Your task to perform on an android device: uninstall "DoorDash - Food Delivery" Image 0: 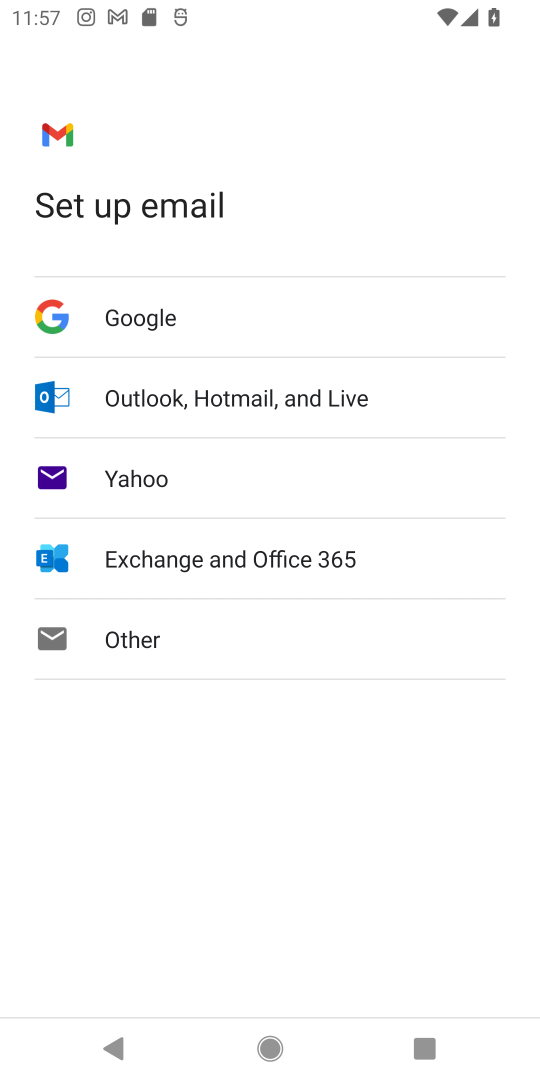
Step 0: press home button
Your task to perform on an android device: uninstall "DoorDash - Food Delivery" Image 1: 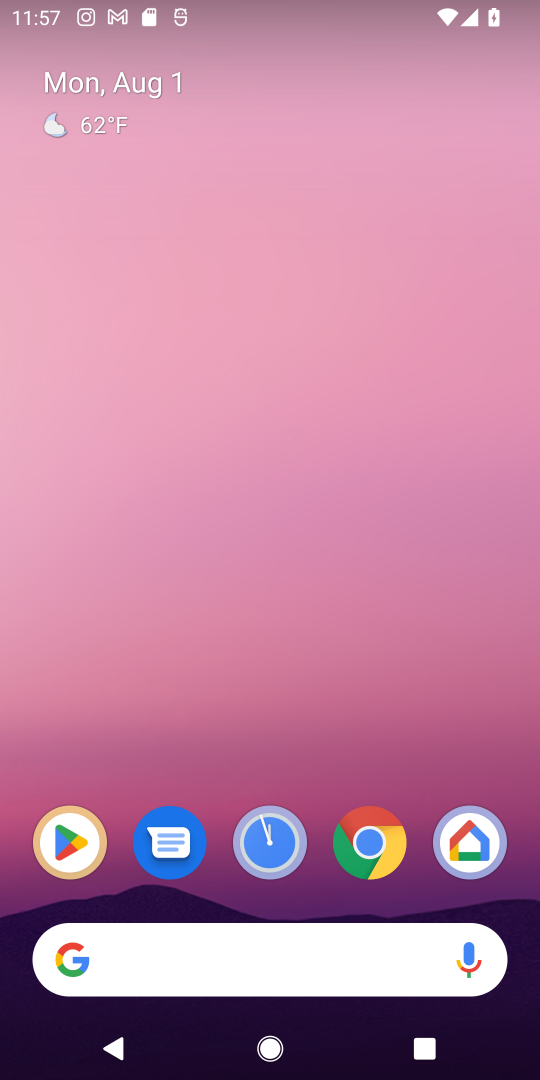
Step 1: click (58, 848)
Your task to perform on an android device: uninstall "DoorDash - Food Delivery" Image 2: 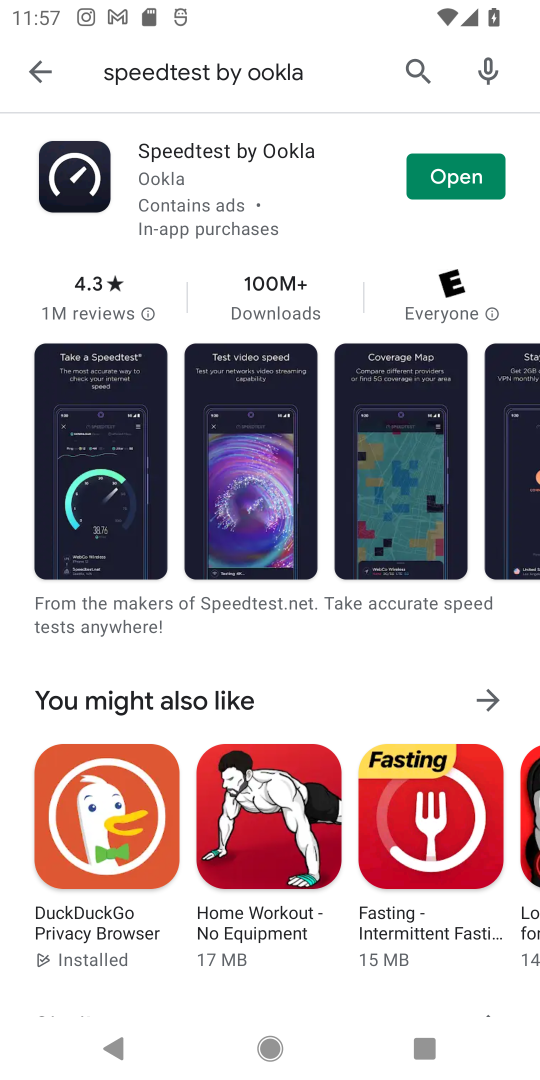
Step 2: click (400, 63)
Your task to perform on an android device: uninstall "DoorDash - Food Delivery" Image 3: 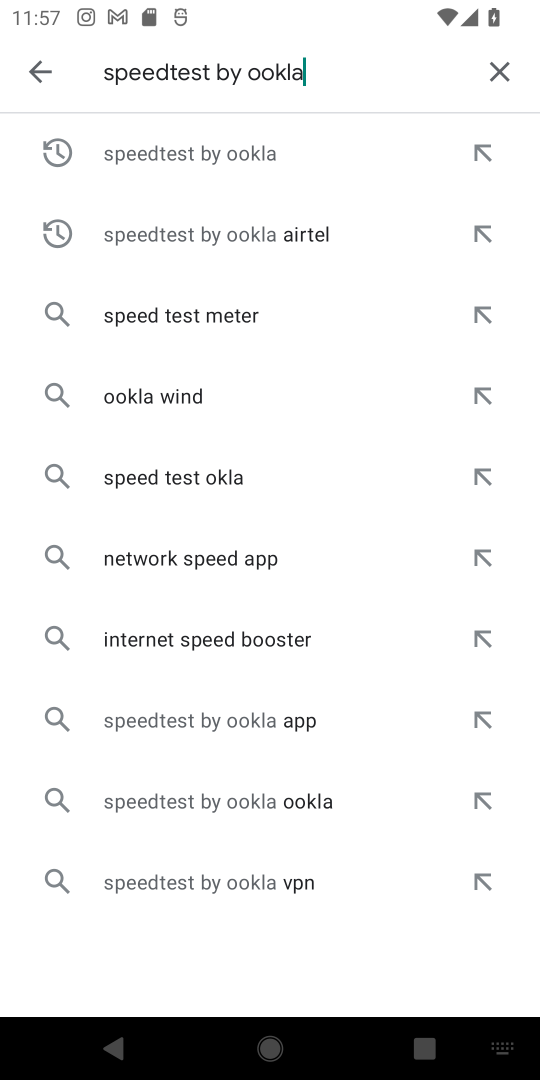
Step 3: click (504, 39)
Your task to perform on an android device: uninstall "DoorDash - Food Delivery" Image 4: 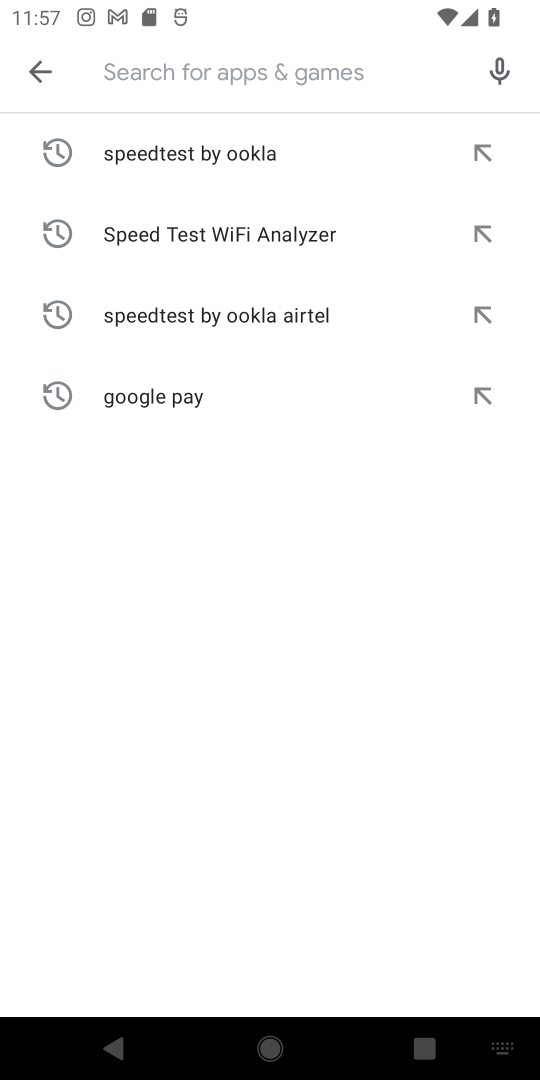
Step 4: click (171, 79)
Your task to perform on an android device: uninstall "DoorDash - Food Delivery" Image 5: 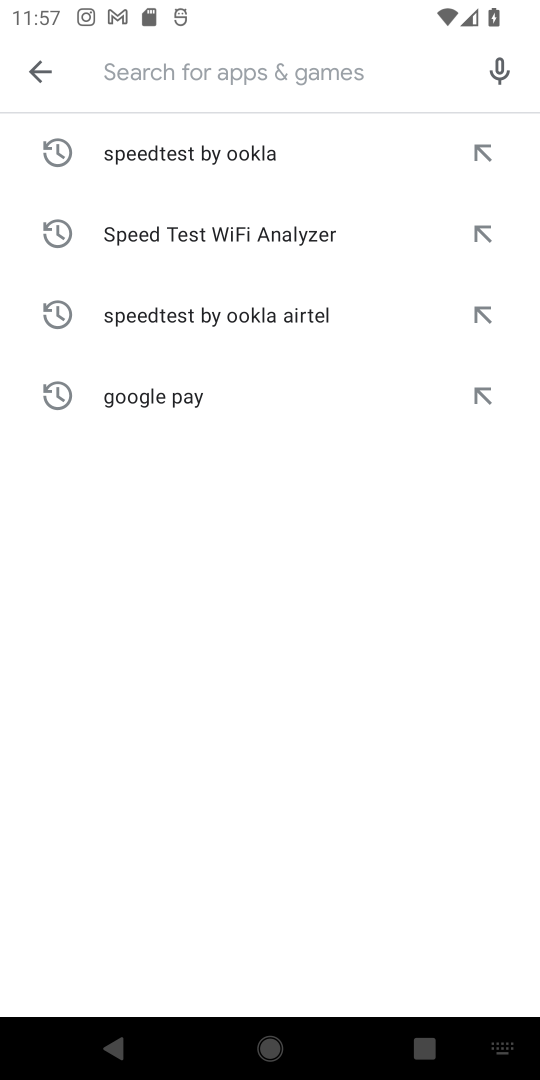
Step 5: type "doordash"
Your task to perform on an android device: uninstall "DoorDash - Food Delivery" Image 6: 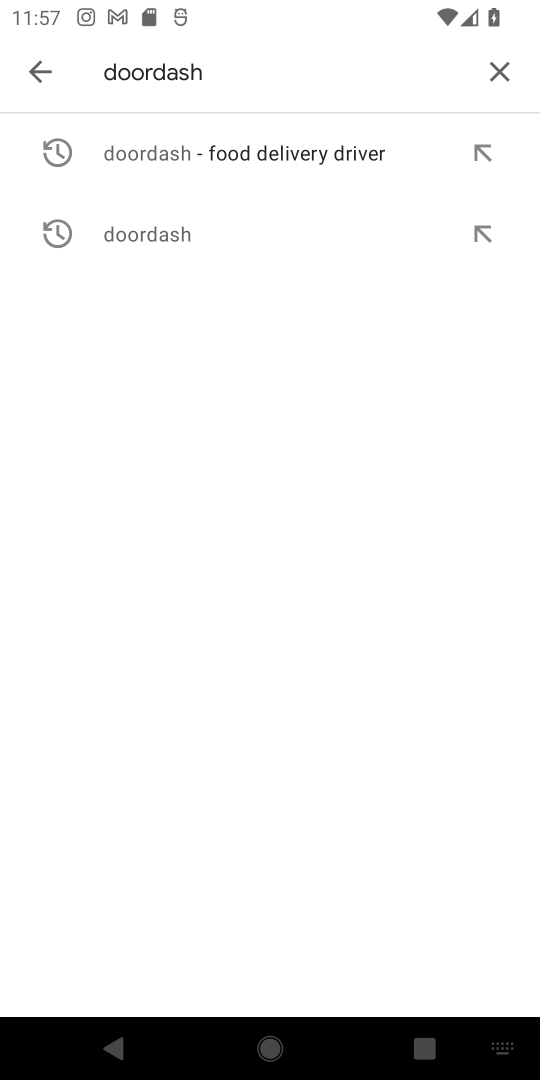
Step 6: click (216, 172)
Your task to perform on an android device: uninstall "DoorDash - Food Delivery" Image 7: 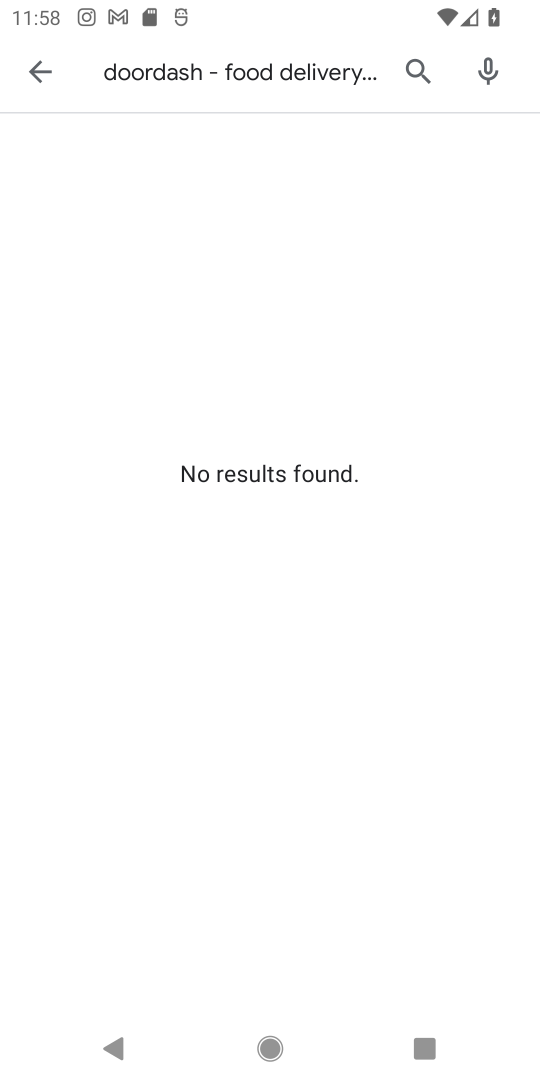
Step 7: click (412, 67)
Your task to perform on an android device: uninstall "DoorDash - Food Delivery" Image 8: 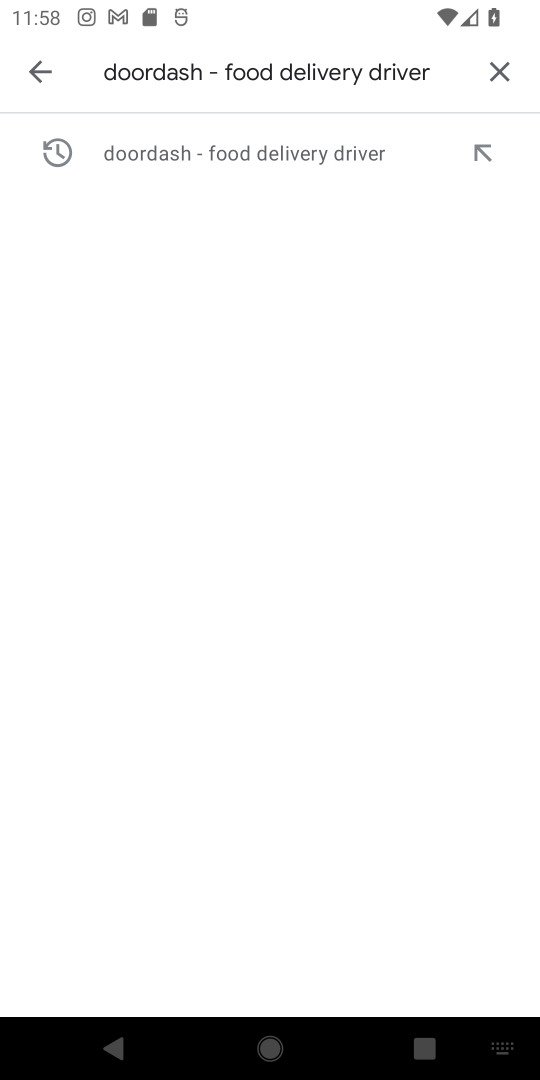
Step 8: click (491, 77)
Your task to perform on an android device: uninstall "DoorDash - Food Delivery" Image 9: 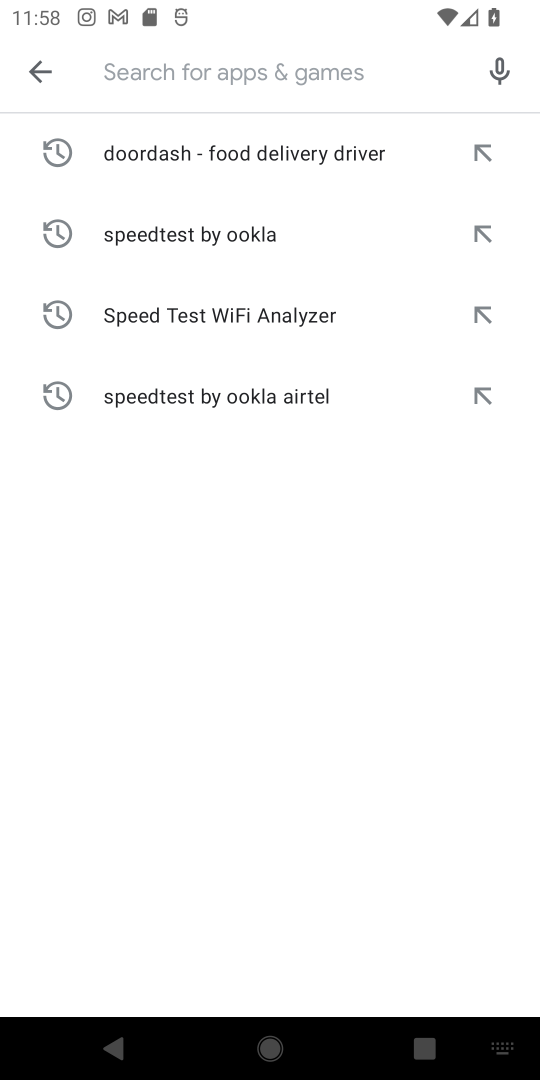
Step 9: click (243, 64)
Your task to perform on an android device: uninstall "DoorDash - Food Delivery" Image 10: 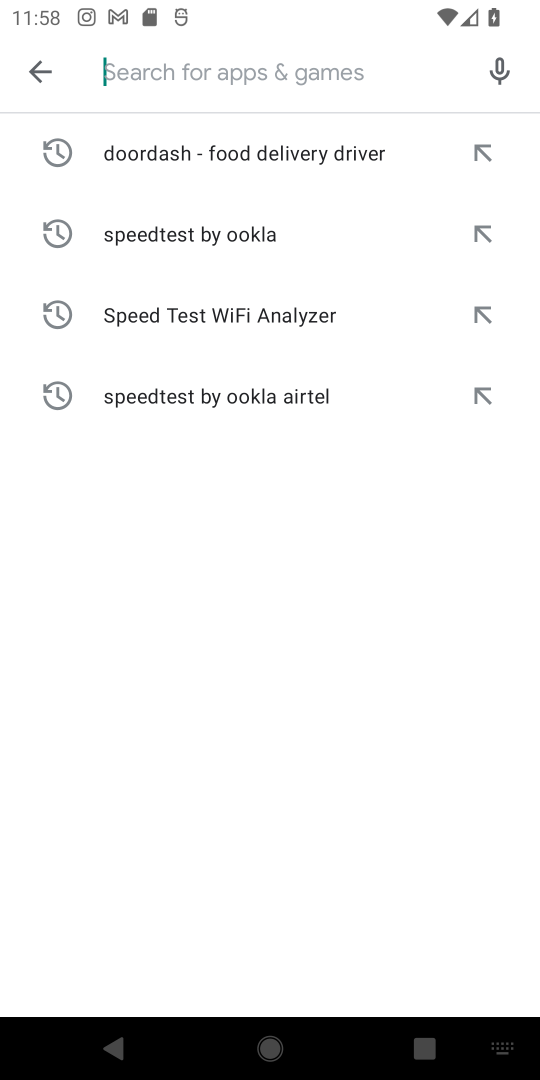
Step 10: type "doordash"
Your task to perform on an android device: uninstall "DoorDash - Food Delivery" Image 11: 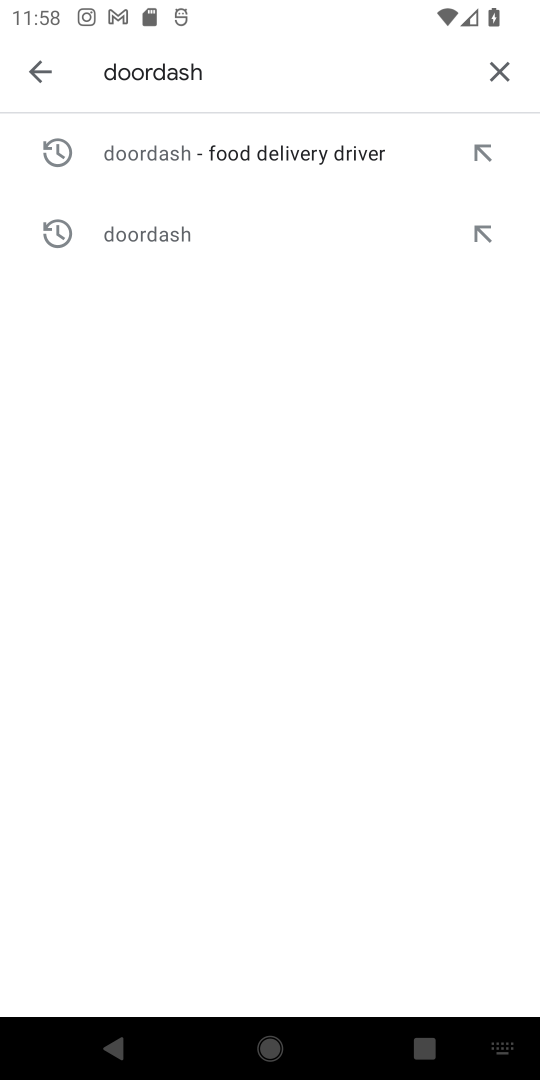
Step 11: click (202, 147)
Your task to perform on an android device: uninstall "DoorDash - Food Delivery" Image 12: 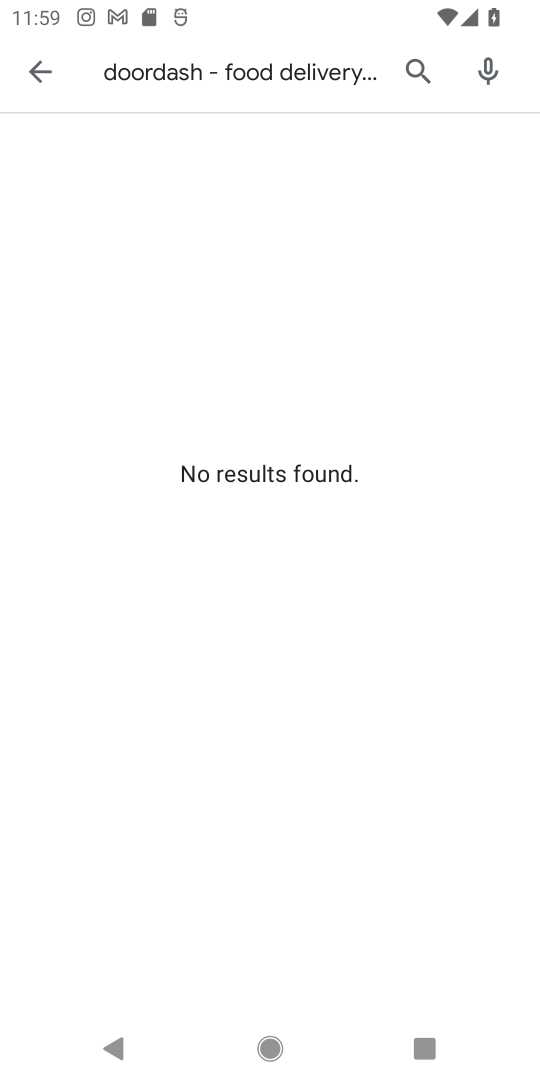
Step 12: click (413, 55)
Your task to perform on an android device: uninstall "DoorDash - Food Delivery" Image 13: 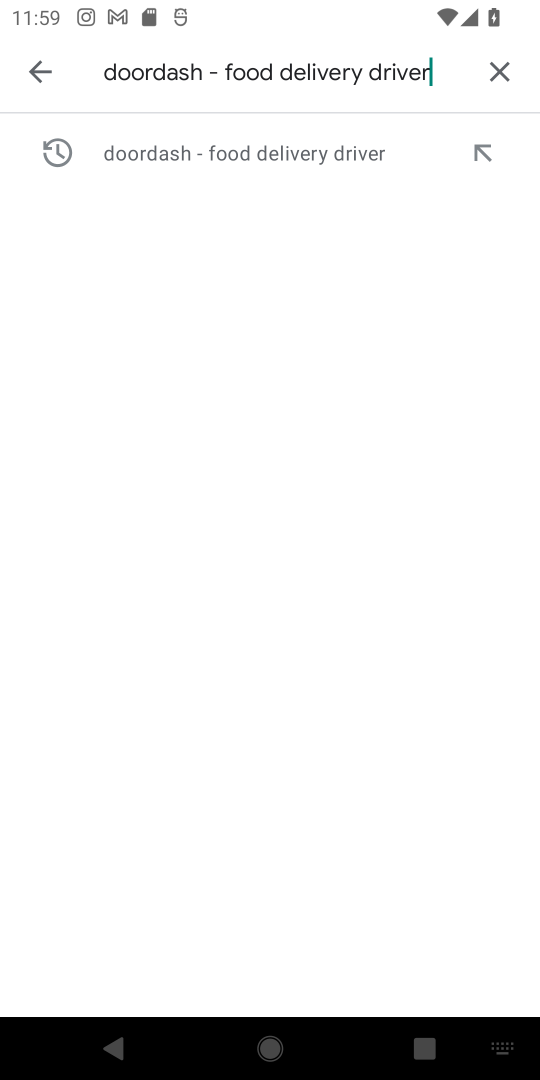
Step 13: click (494, 65)
Your task to perform on an android device: uninstall "DoorDash - Food Delivery" Image 14: 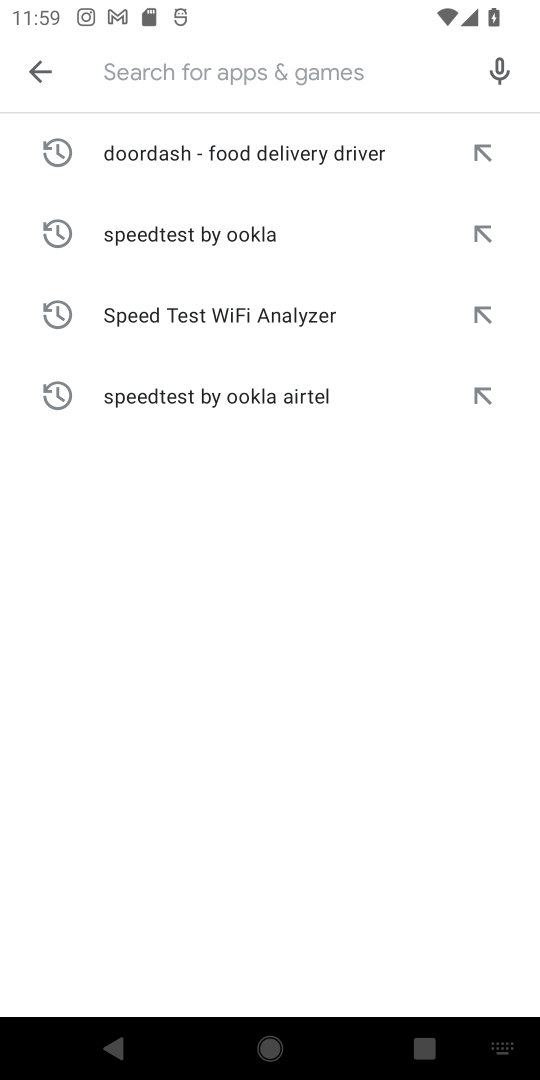
Step 14: click (185, 64)
Your task to perform on an android device: uninstall "DoorDash - Food Delivery" Image 15: 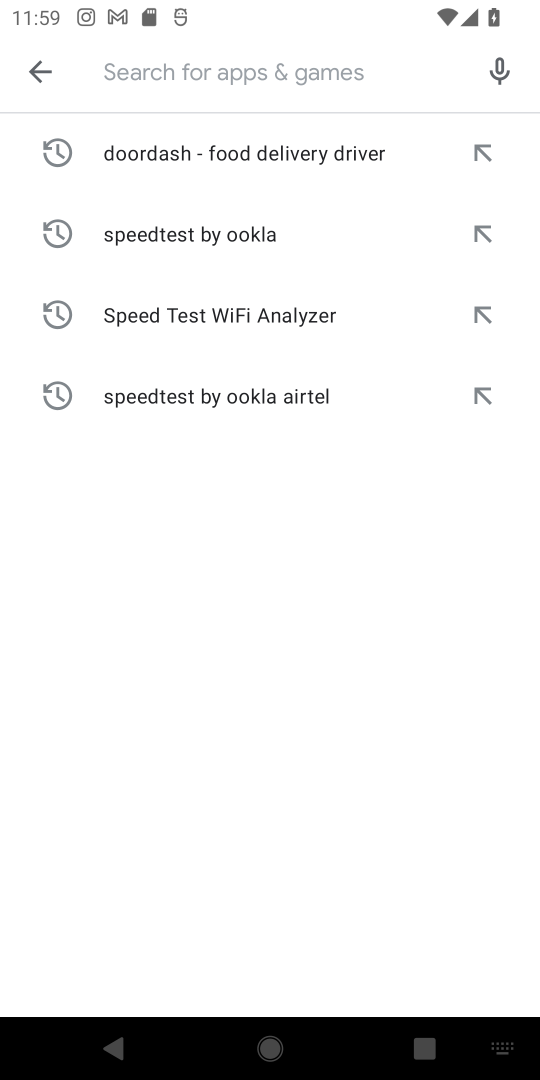
Step 15: type "doordash"
Your task to perform on an android device: uninstall "DoorDash - Food Delivery" Image 16: 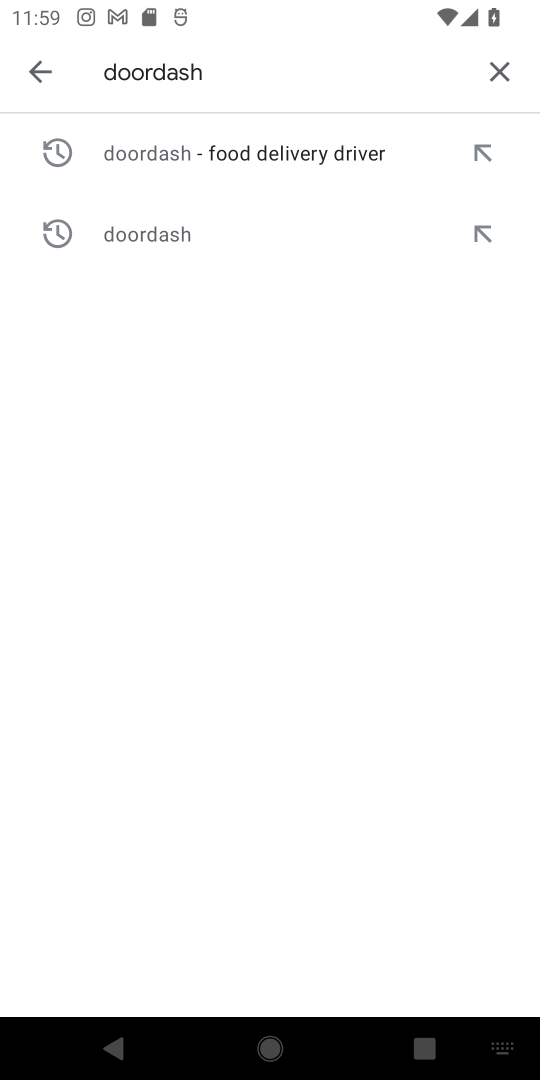
Step 16: click (157, 240)
Your task to perform on an android device: uninstall "DoorDash - Food Delivery" Image 17: 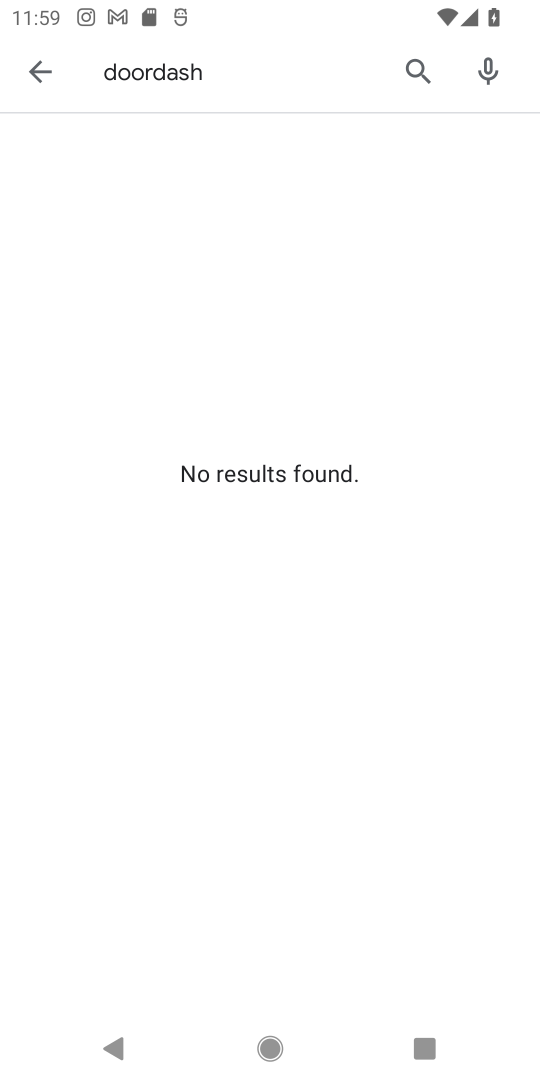
Step 17: task complete